Your task to perform on an android device: set the timer Image 0: 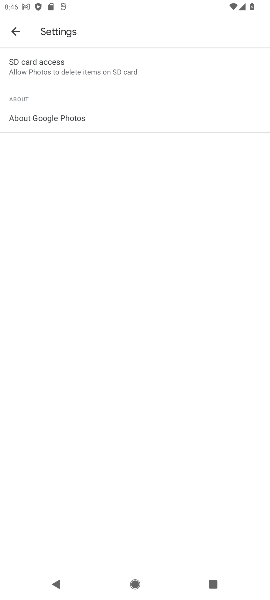
Step 0: press home button
Your task to perform on an android device: set the timer Image 1: 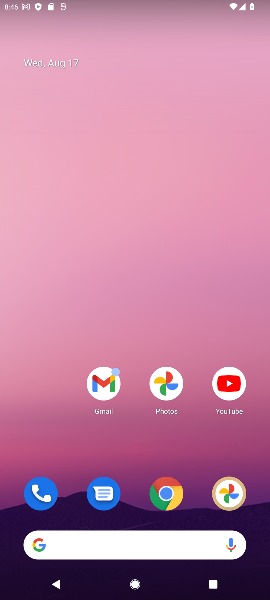
Step 1: drag from (93, 467) to (114, 26)
Your task to perform on an android device: set the timer Image 2: 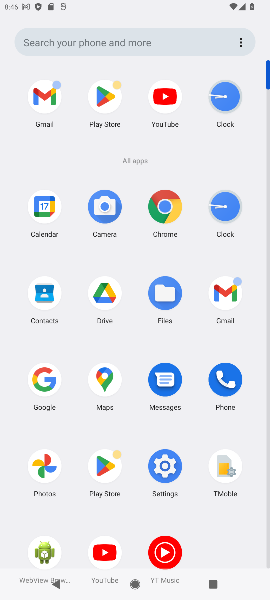
Step 2: click (217, 211)
Your task to perform on an android device: set the timer Image 3: 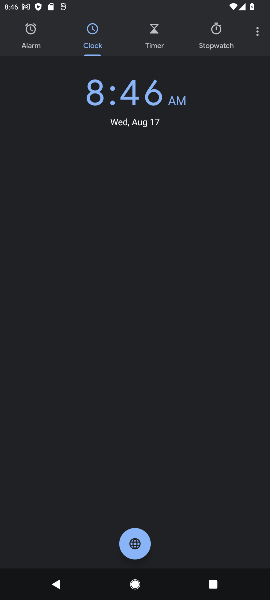
Step 3: click (146, 31)
Your task to perform on an android device: set the timer Image 4: 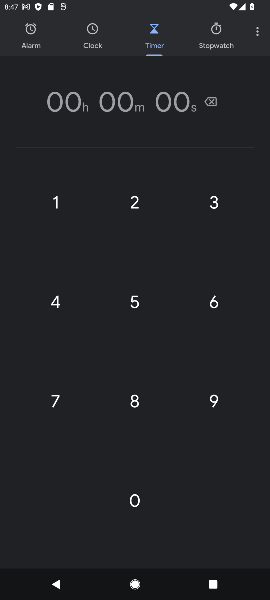
Step 4: click (136, 220)
Your task to perform on an android device: set the timer Image 5: 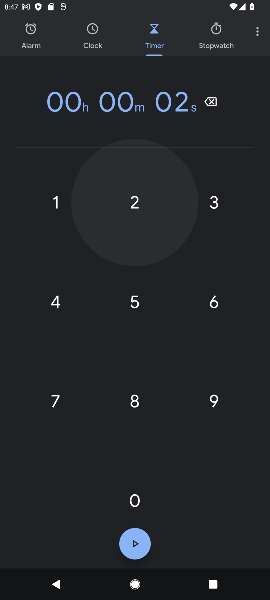
Step 5: click (126, 302)
Your task to perform on an android device: set the timer Image 6: 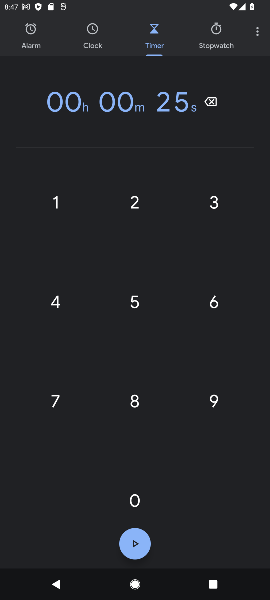
Step 6: click (144, 211)
Your task to perform on an android device: set the timer Image 7: 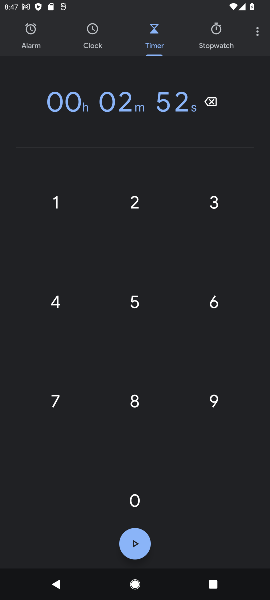
Step 7: click (142, 301)
Your task to perform on an android device: set the timer Image 8: 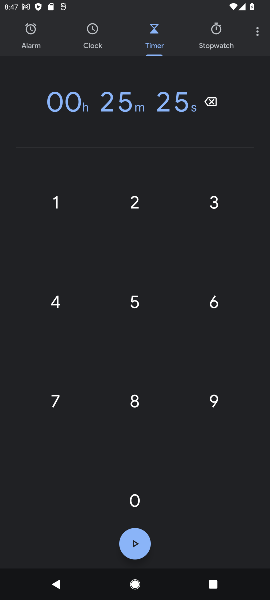
Step 8: click (139, 209)
Your task to perform on an android device: set the timer Image 9: 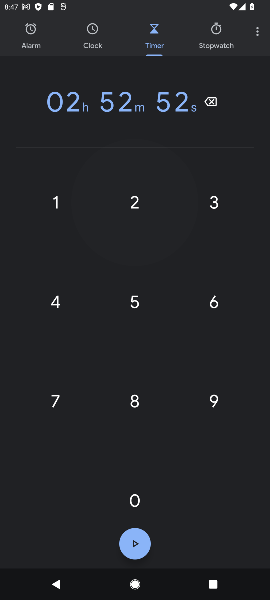
Step 9: click (125, 307)
Your task to perform on an android device: set the timer Image 10: 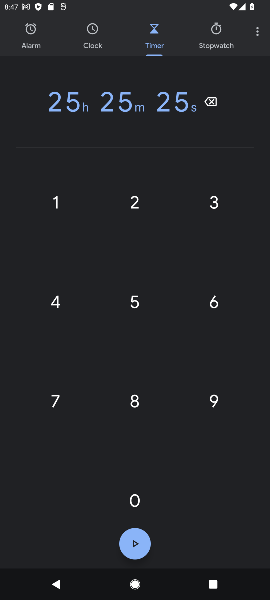
Step 10: click (126, 544)
Your task to perform on an android device: set the timer Image 11: 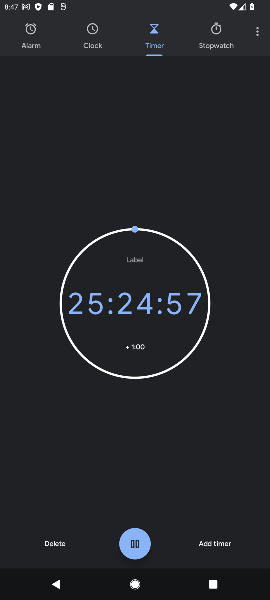
Step 11: task complete